Your task to perform on an android device: change notifications settings Image 0: 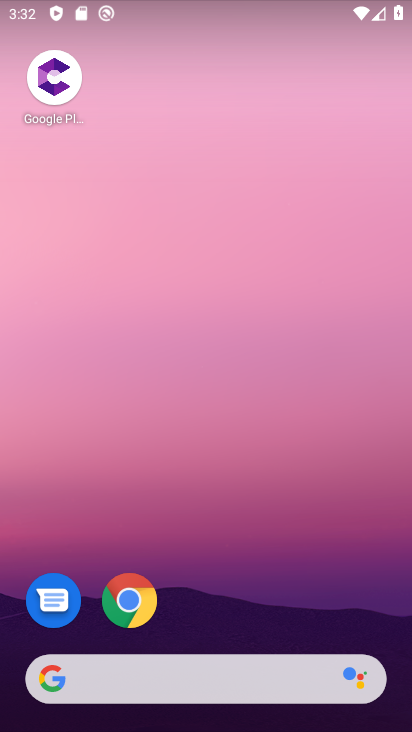
Step 0: drag from (83, 489) to (254, 62)
Your task to perform on an android device: change notifications settings Image 1: 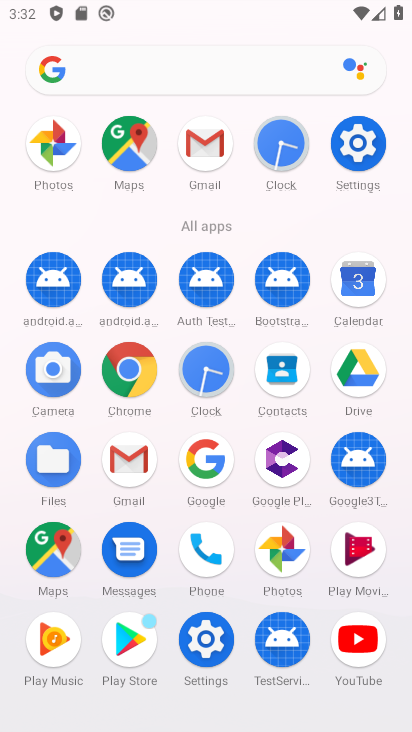
Step 1: click (354, 147)
Your task to perform on an android device: change notifications settings Image 2: 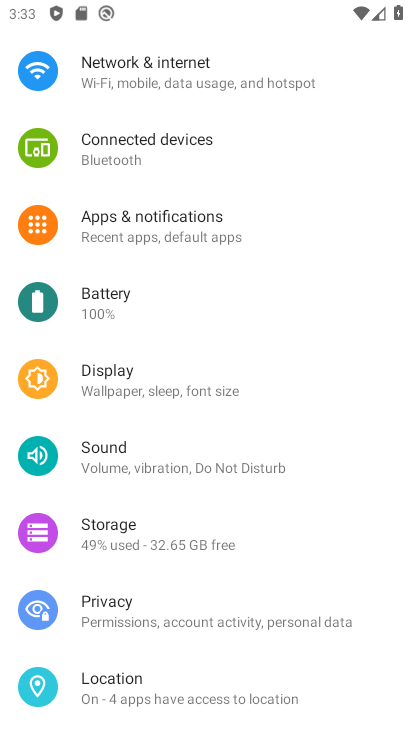
Step 2: click (144, 231)
Your task to perform on an android device: change notifications settings Image 3: 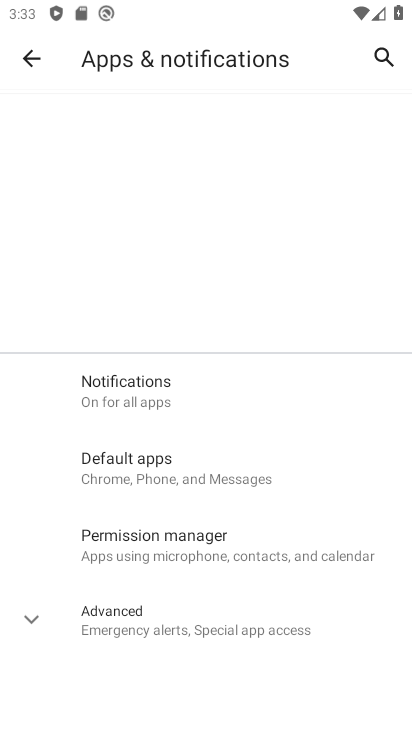
Step 3: task complete